Your task to perform on an android device: change the clock display to digital Image 0: 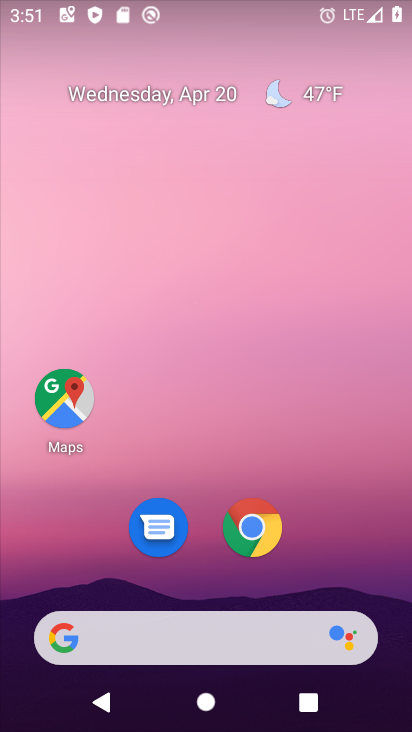
Step 0: drag from (330, 560) to (294, 158)
Your task to perform on an android device: change the clock display to digital Image 1: 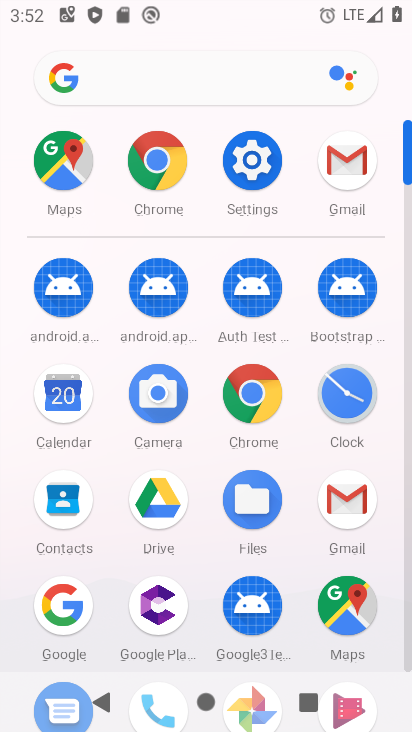
Step 1: click (348, 411)
Your task to perform on an android device: change the clock display to digital Image 2: 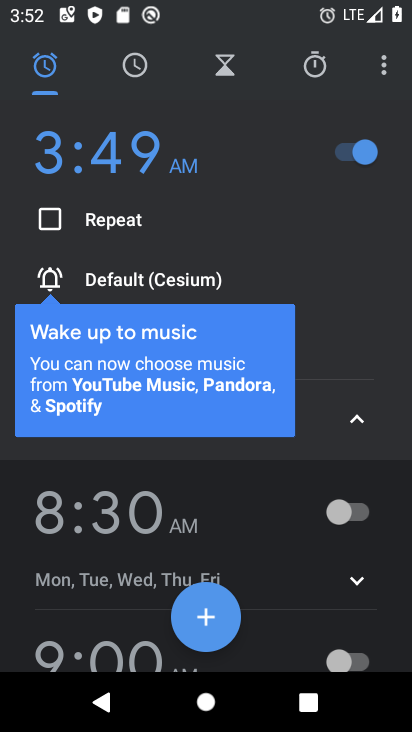
Step 2: click (388, 64)
Your task to perform on an android device: change the clock display to digital Image 3: 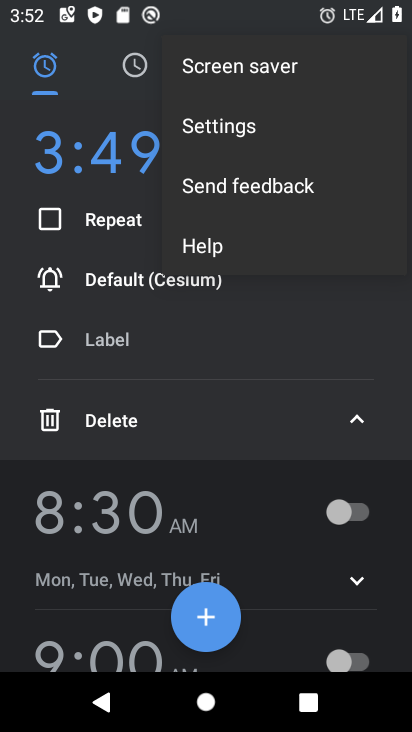
Step 3: click (244, 133)
Your task to perform on an android device: change the clock display to digital Image 4: 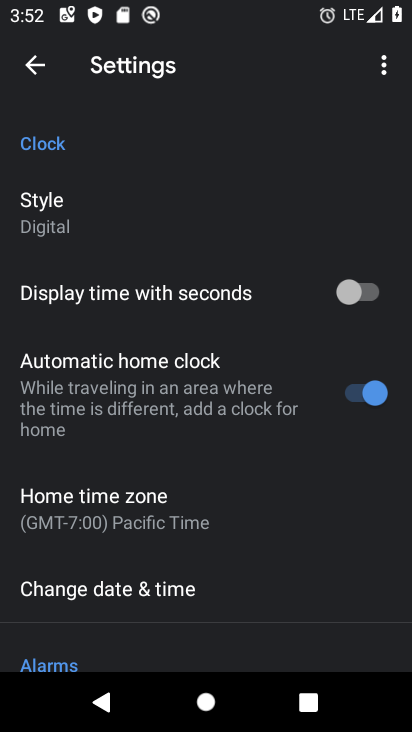
Step 4: task complete